Your task to perform on an android device: Open Chrome and go to settings Image 0: 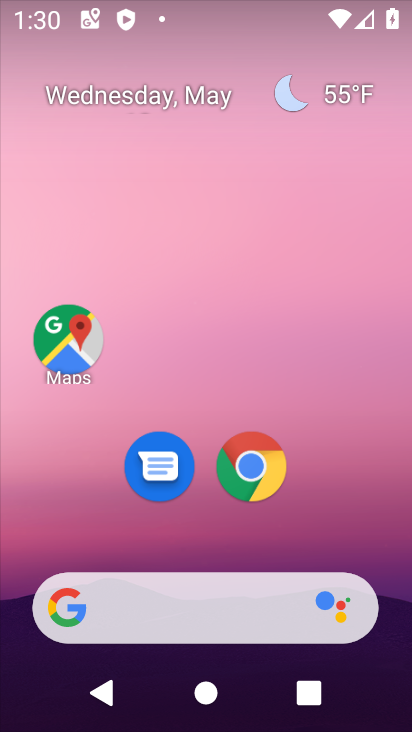
Step 0: click (247, 470)
Your task to perform on an android device: Open Chrome and go to settings Image 1: 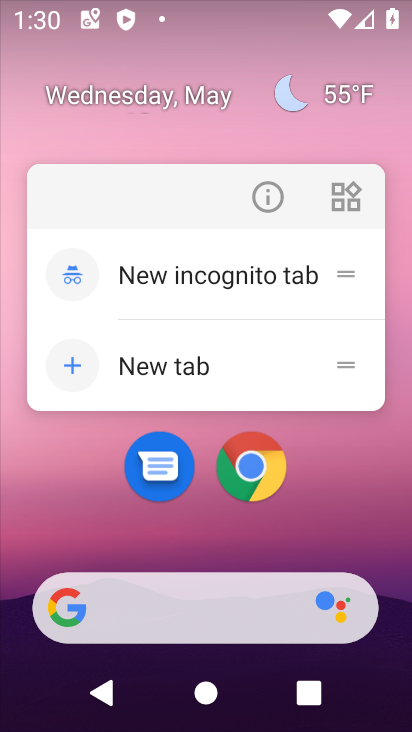
Step 1: click (252, 471)
Your task to perform on an android device: Open Chrome and go to settings Image 2: 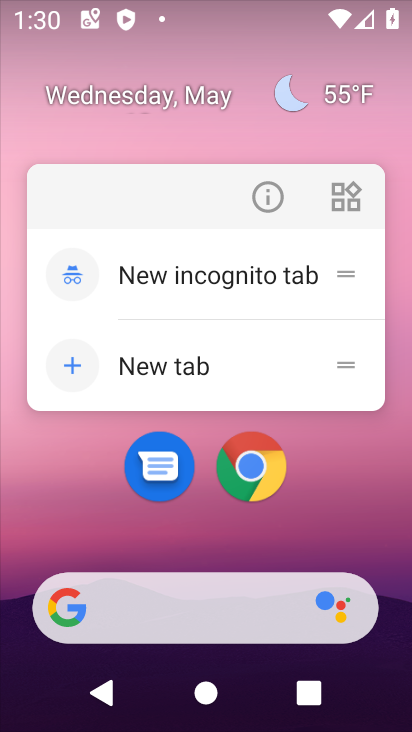
Step 2: click (252, 471)
Your task to perform on an android device: Open Chrome and go to settings Image 3: 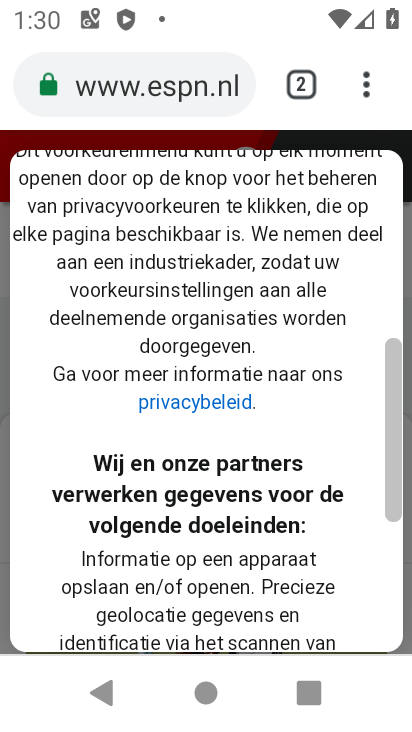
Step 3: click (368, 82)
Your task to perform on an android device: Open Chrome and go to settings Image 4: 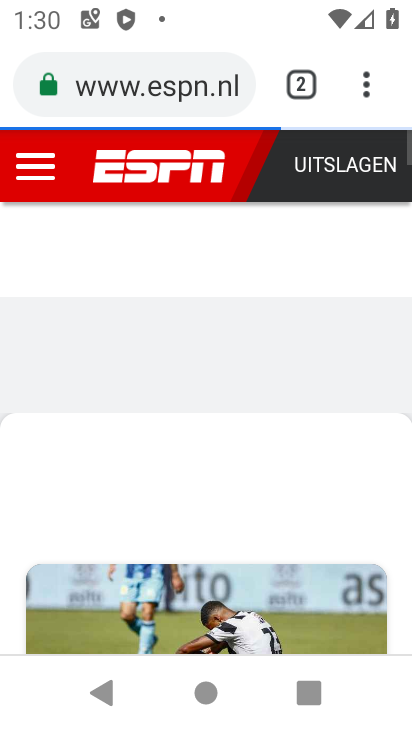
Step 4: click (376, 83)
Your task to perform on an android device: Open Chrome and go to settings Image 5: 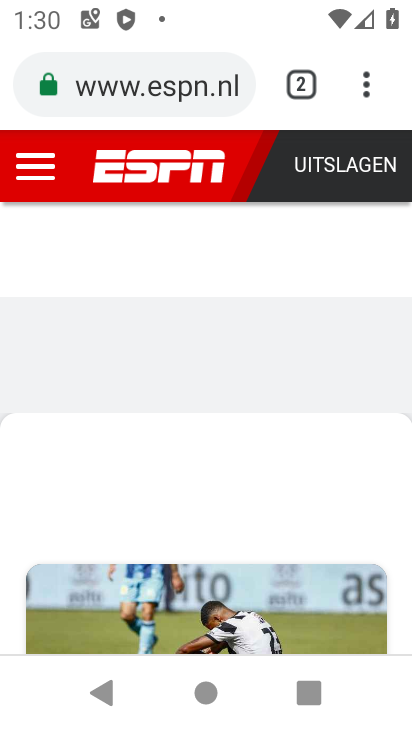
Step 5: click (368, 95)
Your task to perform on an android device: Open Chrome and go to settings Image 6: 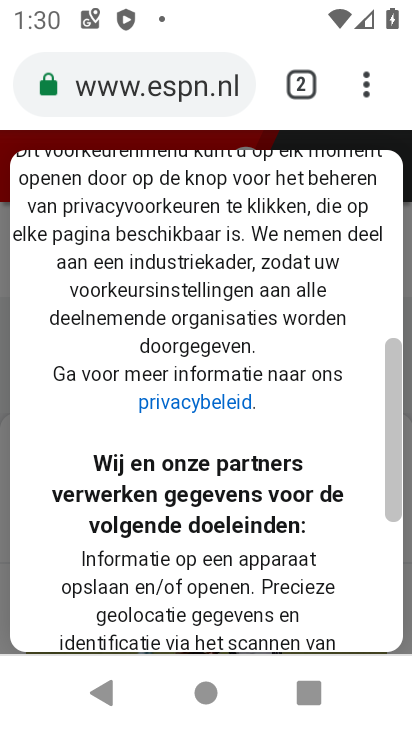
Step 6: click (354, 95)
Your task to perform on an android device: Open Chrome and go to settings Image 7: 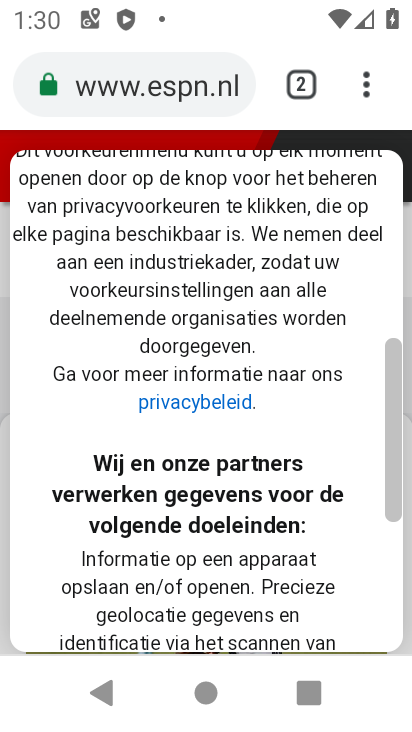
Step 7: click (368, 88)
Your task to perform on an android device: Open Chrome and go to settings Image 8: 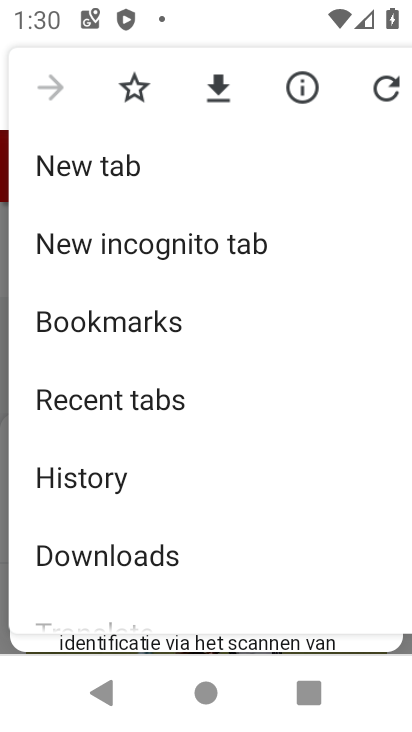
Step 8: drag from (261, 465) to (254, 152)
Your task to perform on an android device: Open Chrome and go to settings Image 9: 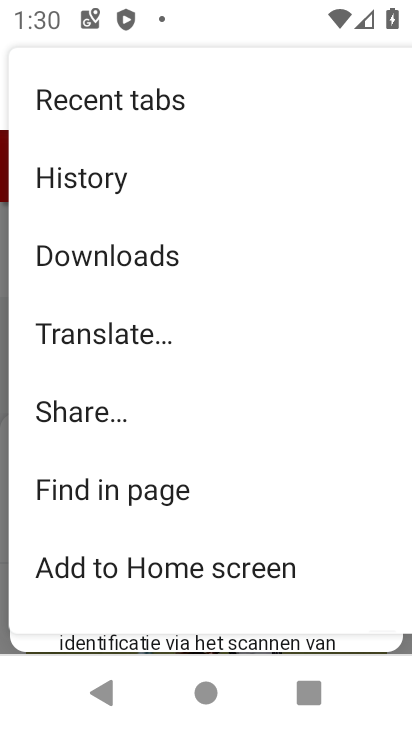
Step 9: drag from (172, 583) to (161, 347)
Your task to perform on an android device: Open Chrome and go to settings Image 10: 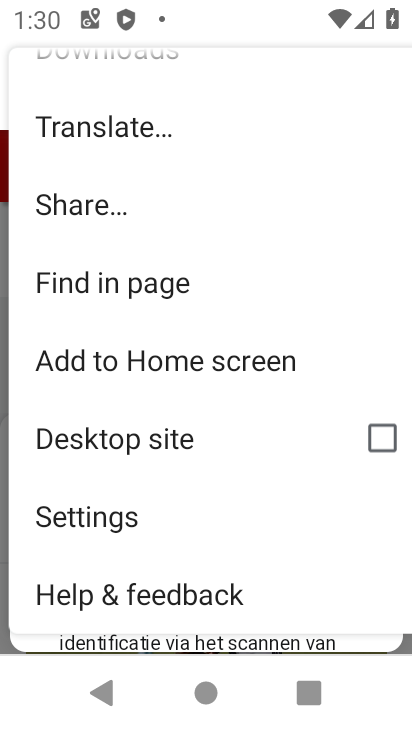
Step 10: click (184, 526)
Your task to perform on an android device: Open Chrome and go to settings Image 11: 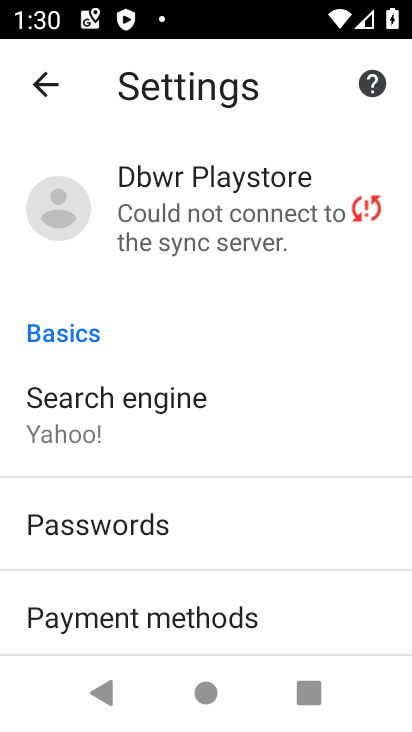
Step 11: task complete